Your task to perform on an android device: move a message to another label in the gmail app Image 0: 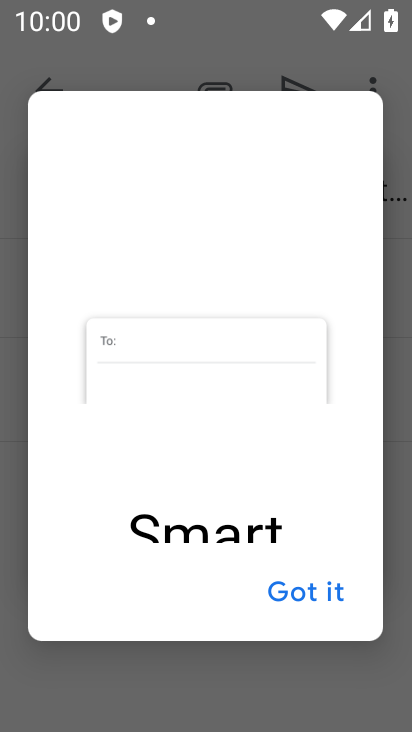
Step 0: press home button
Your task to perform on an android device: move a message to another label in the gmail app Image 1: 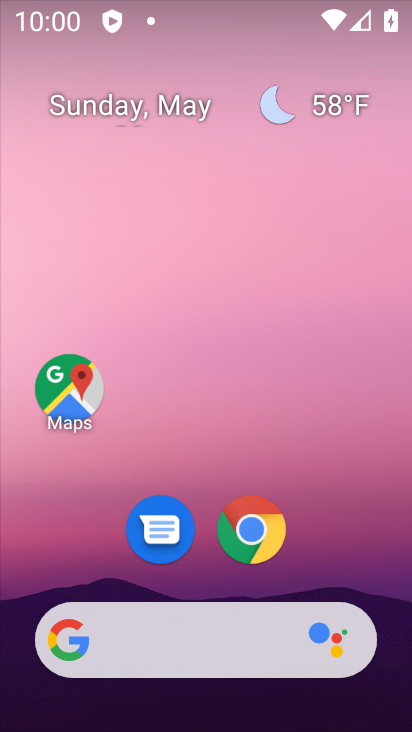
Step 1: drag from (219, 576) to (100, 0)
Your task to perform on an android device: move a message to another label in the gmail app Image 2: 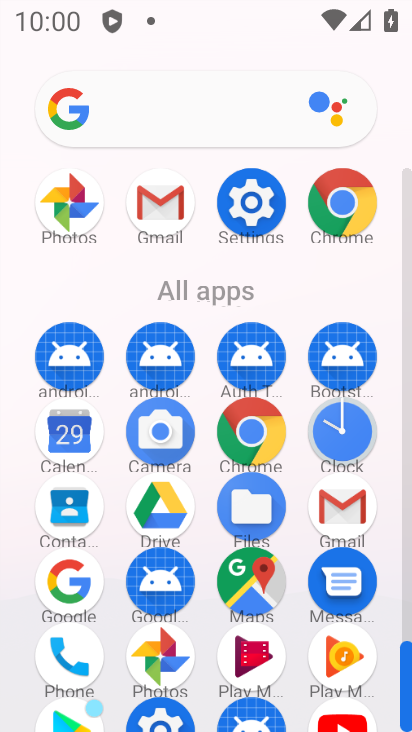
Step 2: click (353, 504)
Your task to perform on an android device: move a message to another label in the gmail app Image 3: 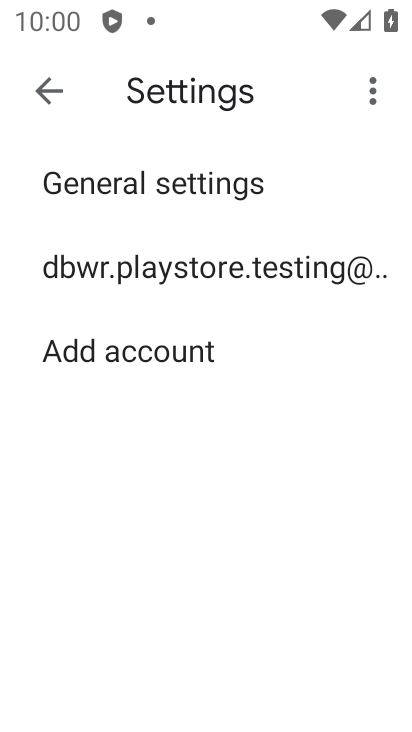
Step 3: click (43, 104)
Your task to perform on an android device: move a message to another label in the gmail app Image 4: 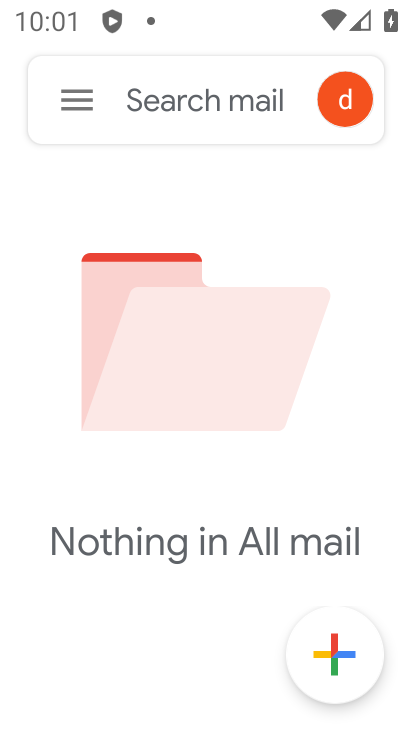
Step 4: task complete